Your task to perform on an android device: open app "Google Maps" Image 0: 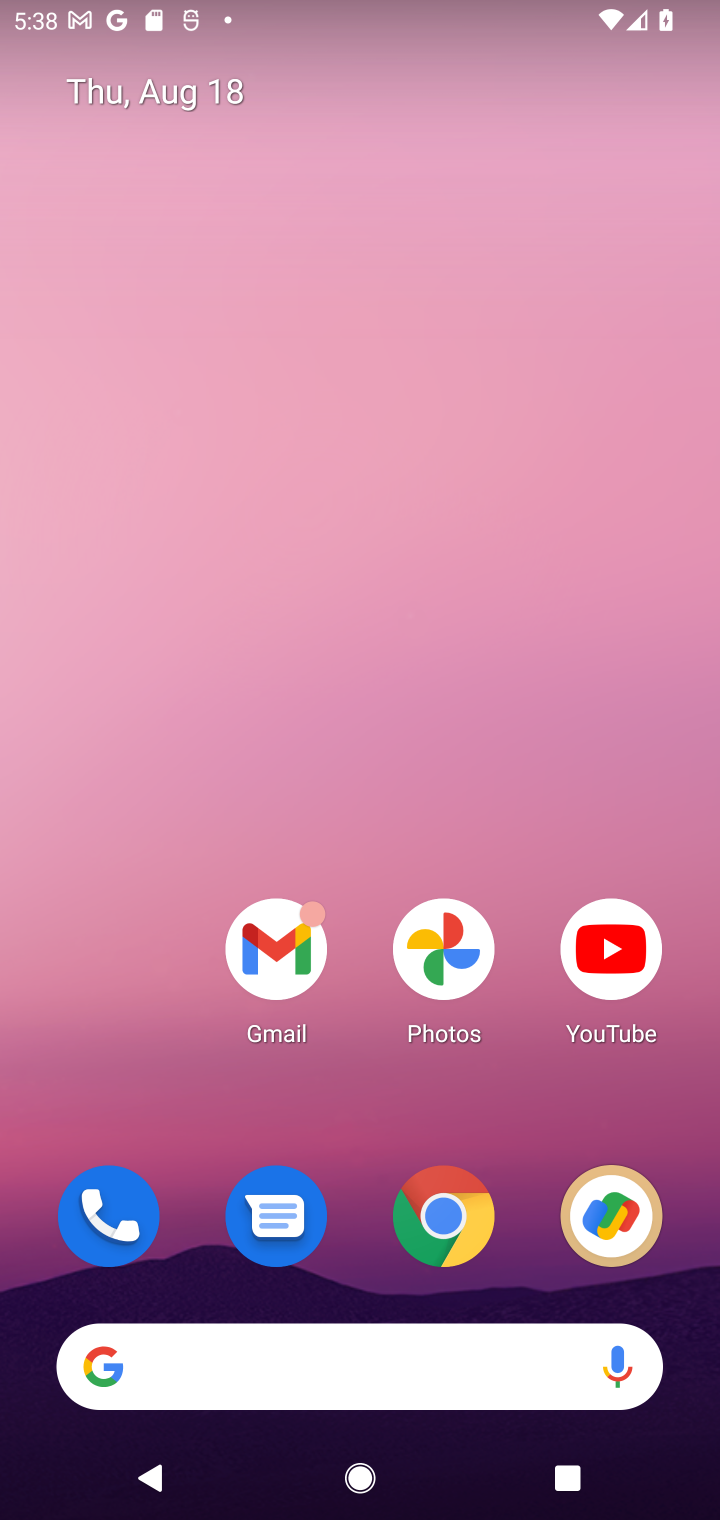
Step 0: drag from (540, 1274) to (516, 259)
Your task to perform on an android device: open app "Google Maps" Image 1: 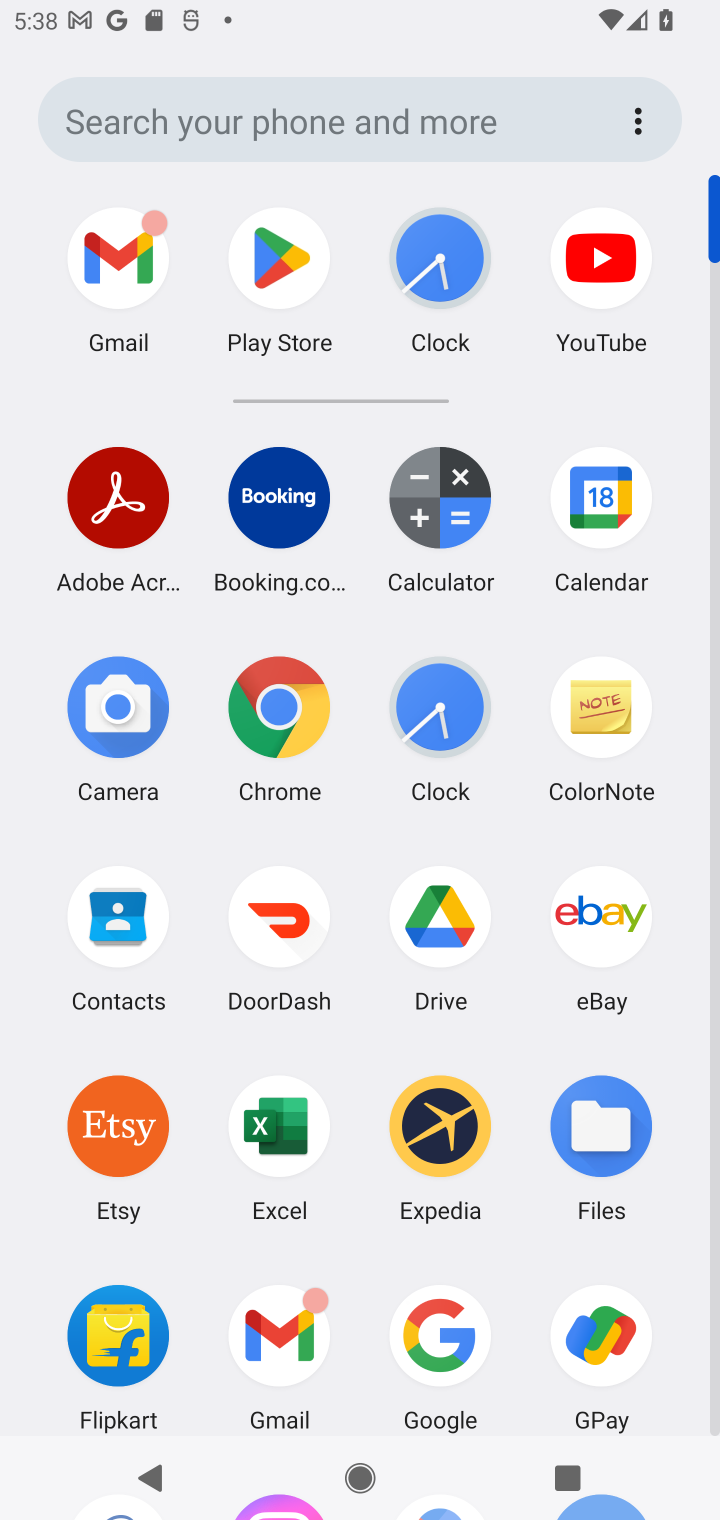
Step 1: drag from (691, 1376) to (678, 560)
Your task to perform on an android device: open app "Google Maps" Image 2: 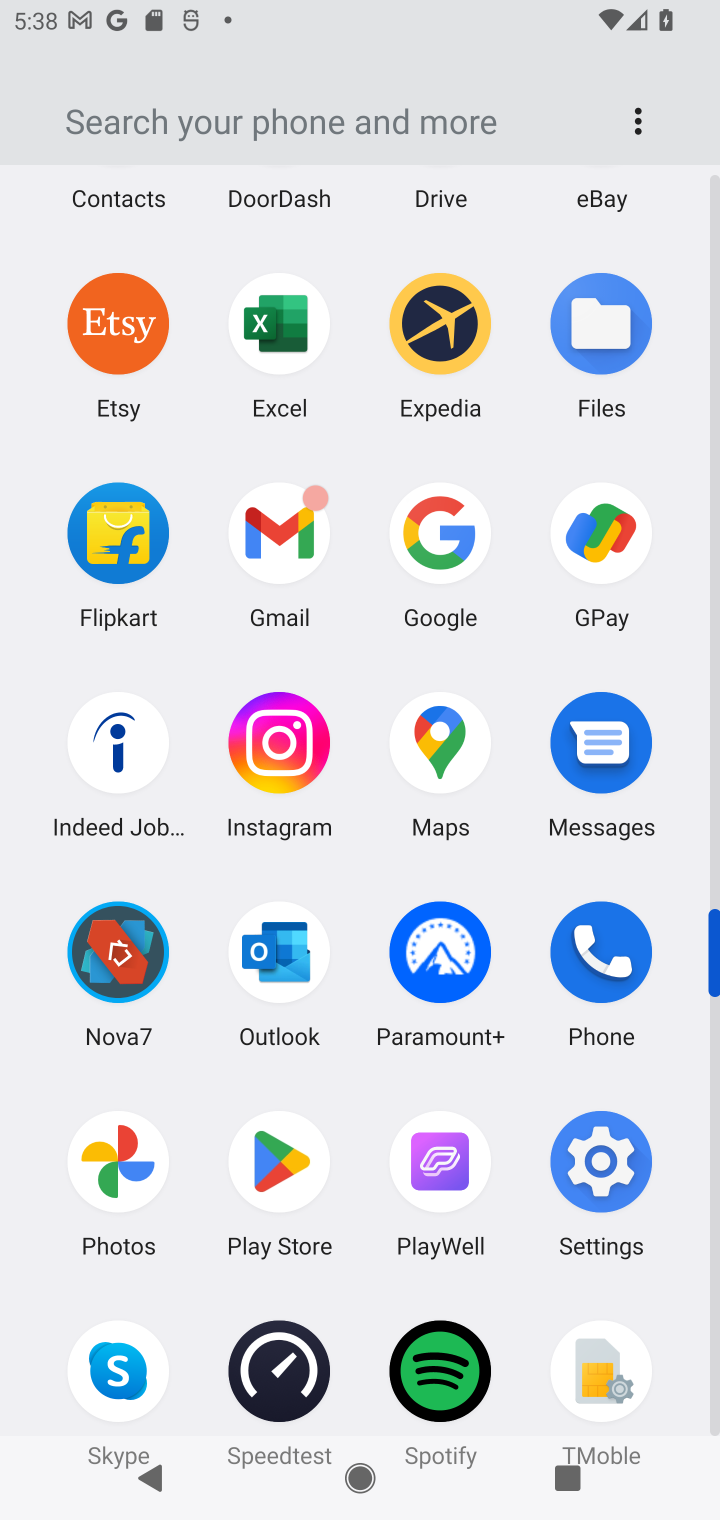
Step 2: click (439, 732)
Your task to perform on an android device: open app "Google Maps" Image 3: 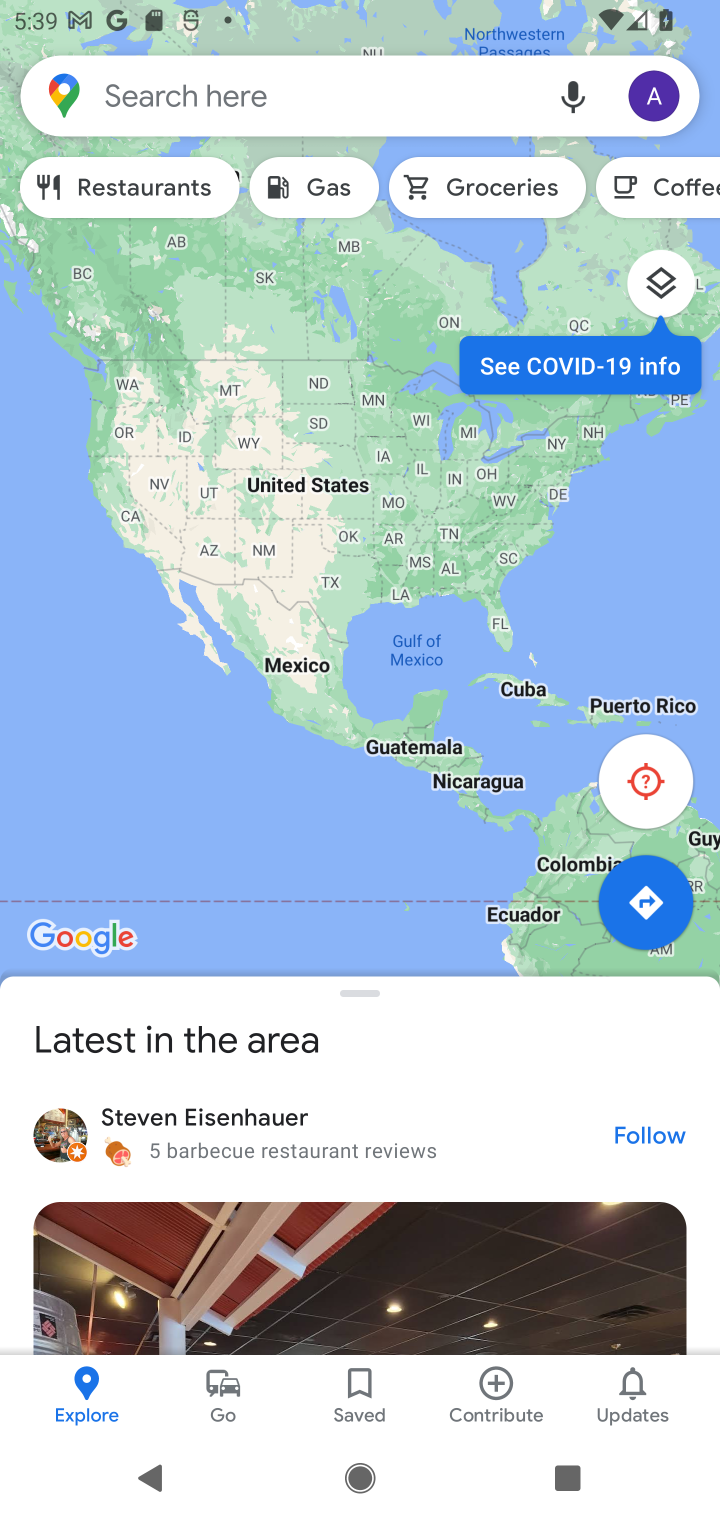
Step 3: task complete